Your task to perform on an android device: Go to sound settings Image 0: 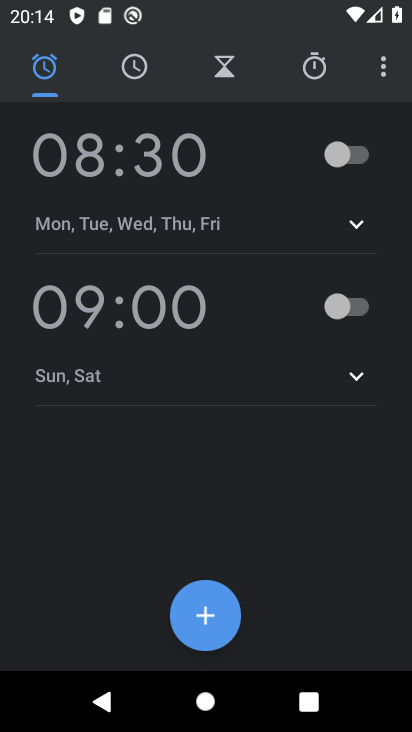
Step 0: press home button
Your task to perform on an android device: Go to sound settings Image 1: 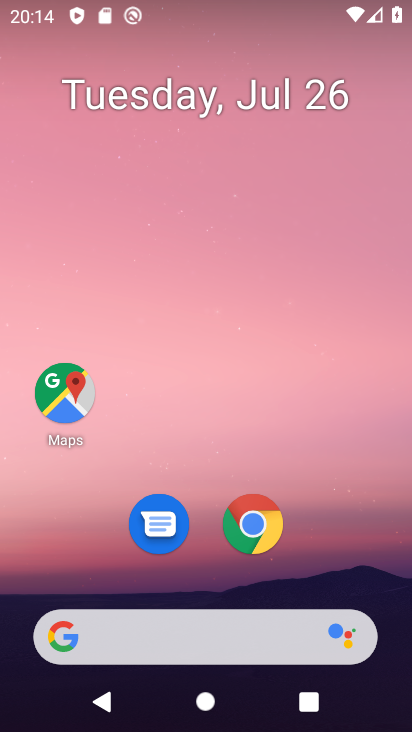
Step 1: drag from (168, 645) to (288, 91)
Your task to perform on an android device: Go to sound settings Image 2: 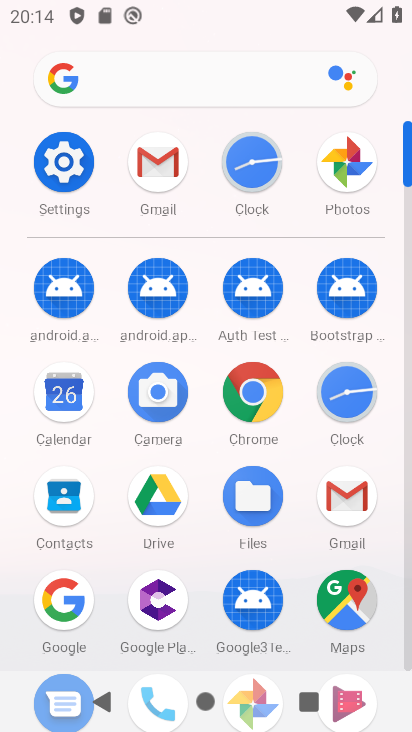
Step 2: click (65, 179)
Your task to perform on an android device: Go to sound settings Image 3: 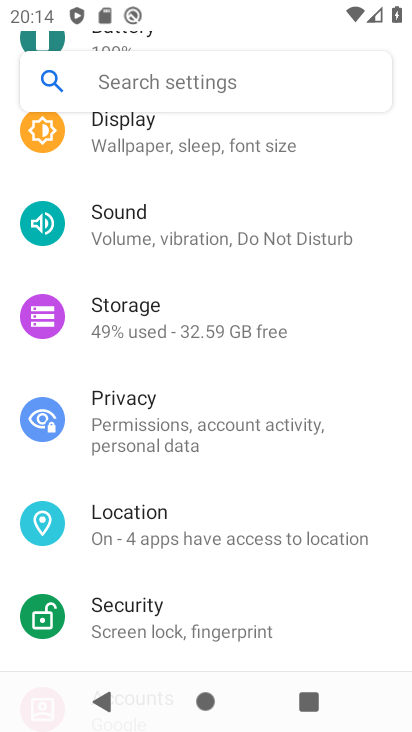
Step 3: click (151, 227)
Your task to perform on an android device: Go to sound settings Image 4: 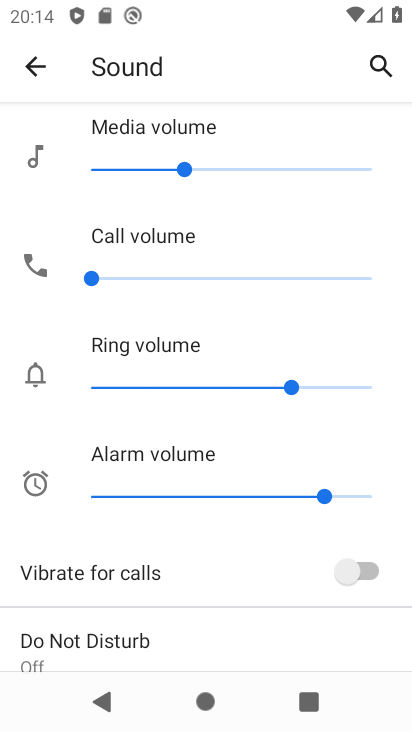
Step 4: task complete